Your task to perform on an android device: Open the web browser Image 0: 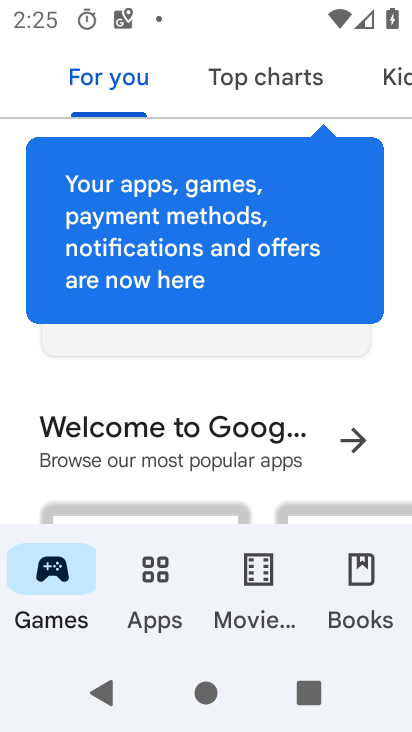
Step 0: press home button
Your task to perform on an android device: Open the web browser Image 1: 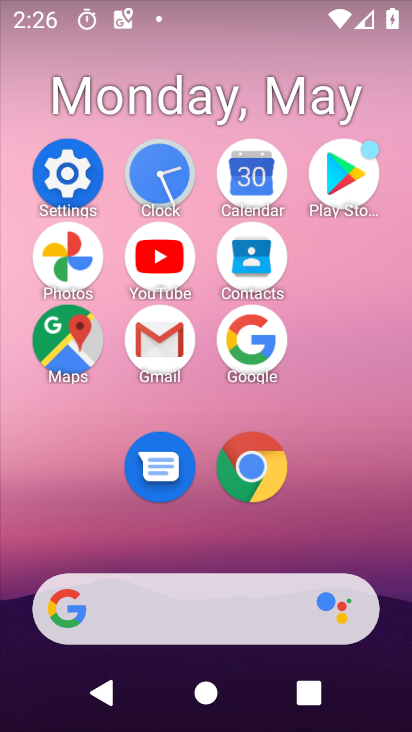
Step 1: click (267, 479)
Your task to perform on an android device: Open the web browser Image 2: 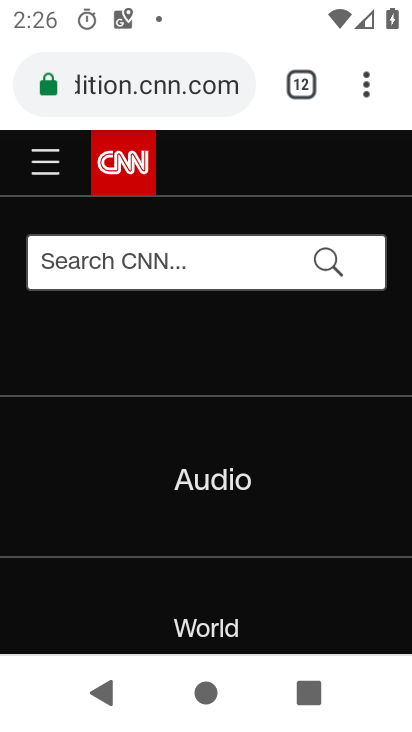
Step 2: task complete